Your task to perform on an android device: Go to ESPN.com Image 0: 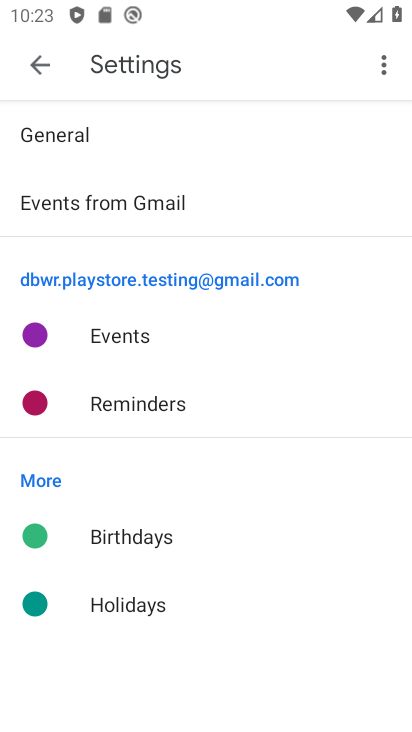
Step 0: press home button
Your task to perform on an android device: Go to ESPN.com Image 1: 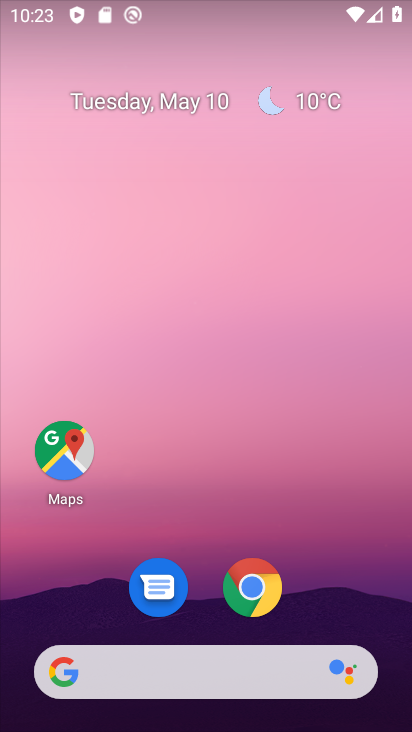
Step 1: click (230, 580)
Your task to perform on an android device: Go to ESPN.com Image 2: 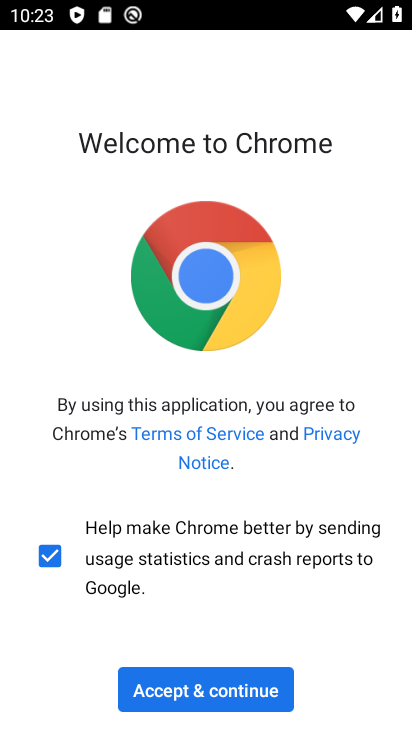
Step 2: click (216, 670)
Your task to perform on an android device: Go to ESPN.com Image 3: 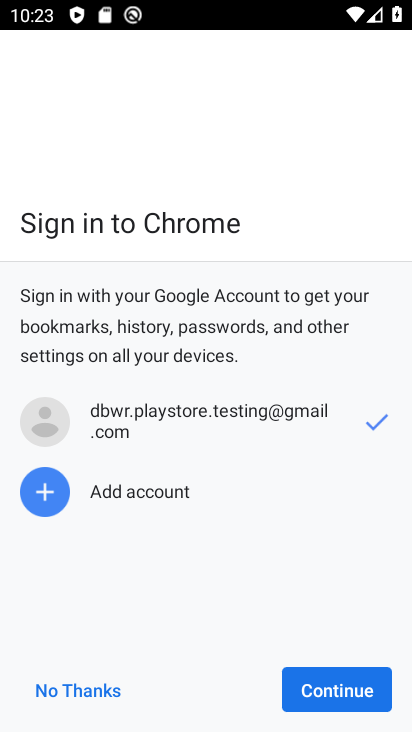
Step 3: click (331, 674)
Your task to perform on an android device: Go to ESPN.com Image 4: 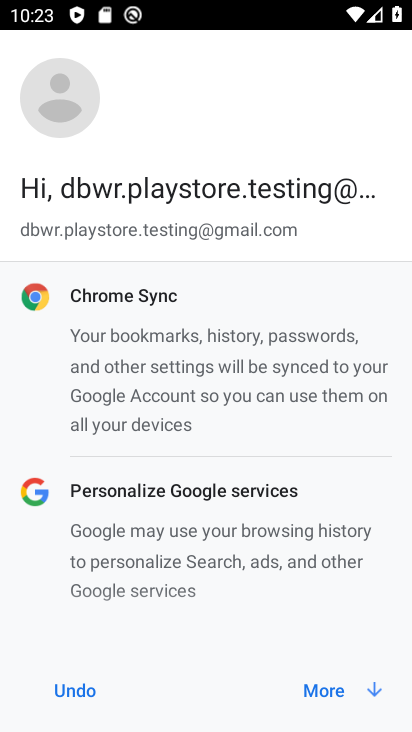
Step 4: click (332, 670)
Your task to perform on an android device: Go to ESPN.com Image 5: 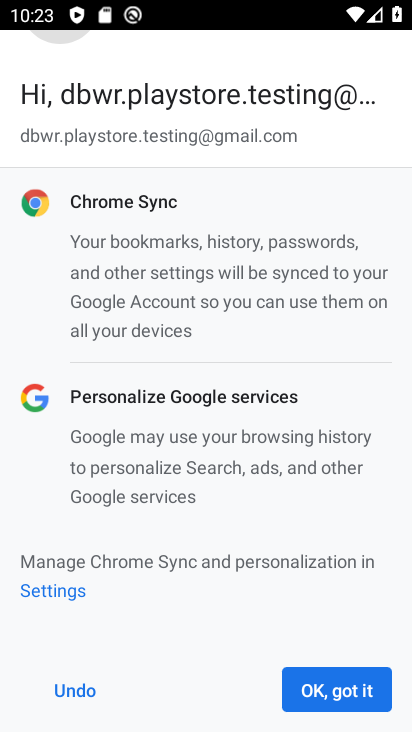
Step 5: click (329, 668)
Your task to perform on an android device: Go to ESPN.com Image 6: 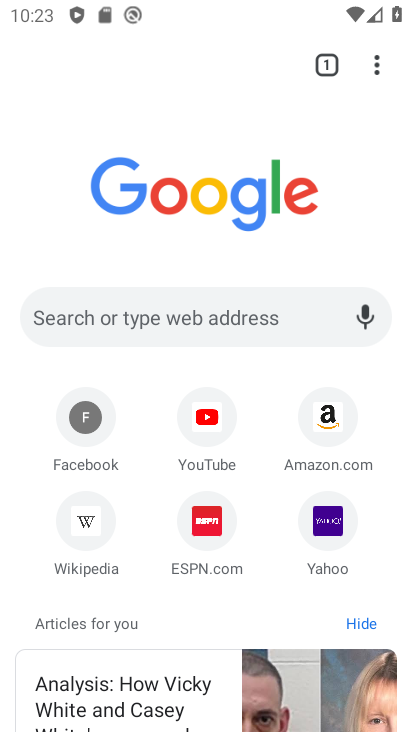
Step 6: click (201, 511)
Your task to perform on an android device: Go to ESPN.com Image 7: 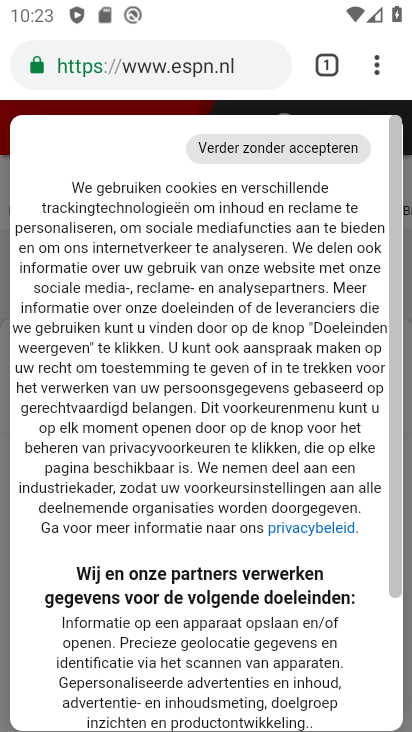
Step 7: task complete